Your task to perform on an android device: Go to location settings Image 0: 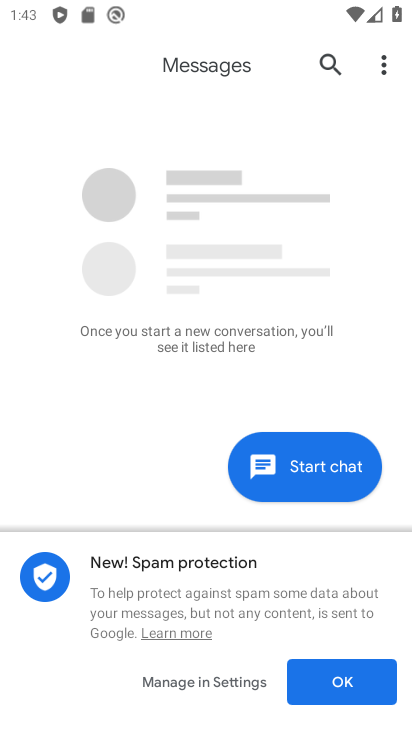
Step 0: press home button
Your task to perform on an android device: Go to location settings Image 1: 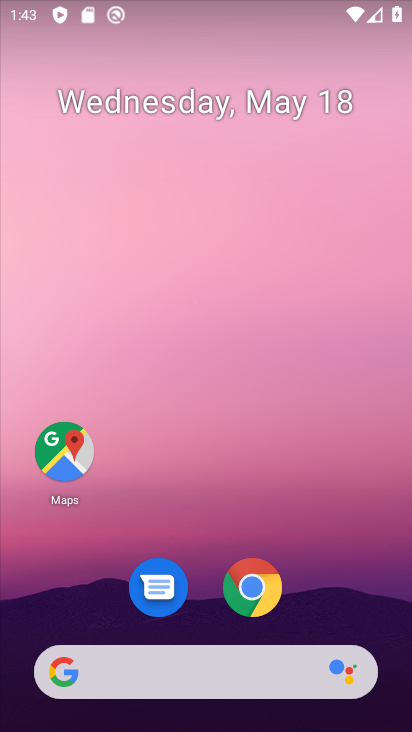
Step 1: drag from (315, 595) to (311, 15)
Your task to perform on an android device: Go to location settings Image 2: 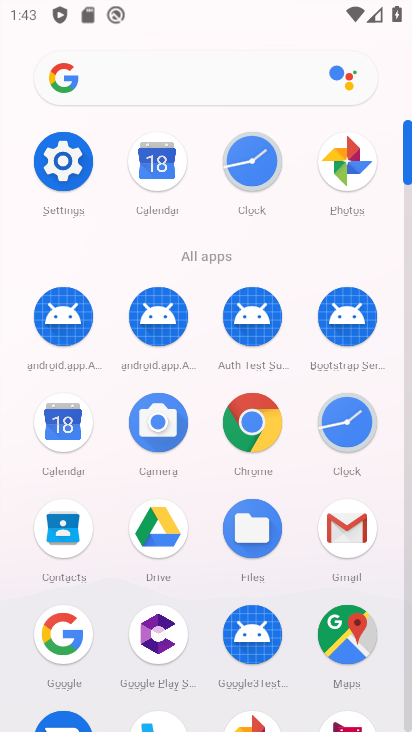
Step 2: click (50, 179)
Your task to perform on an android device: Go to location settings Image 3: 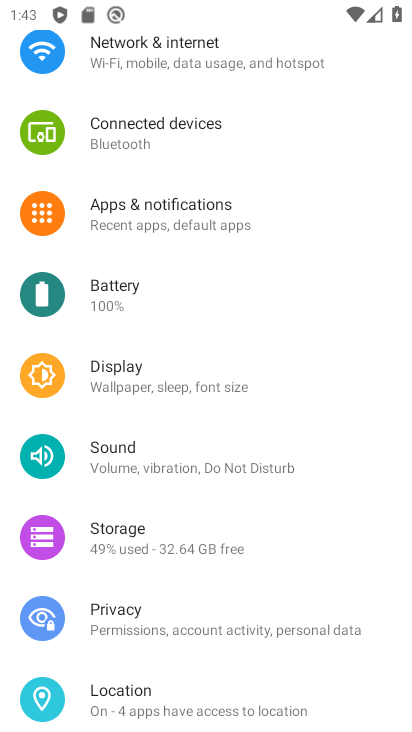
Step 3: click (133, 695)
Your task to perform on an android device: Go to location settings Image 4: 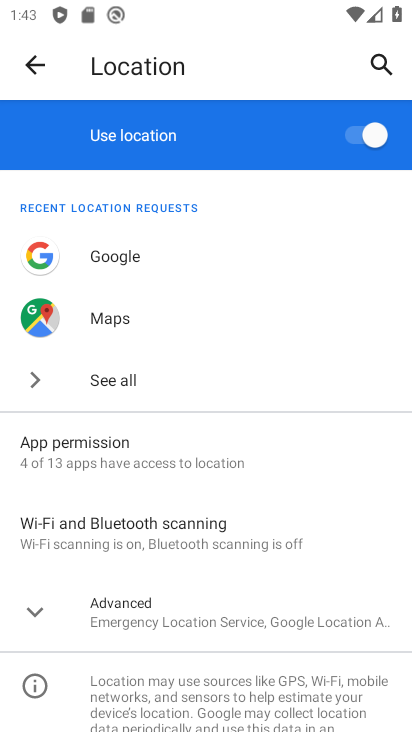
Step 4: task complete